Your task to perform on an android device: Go to Google maps Image 0: 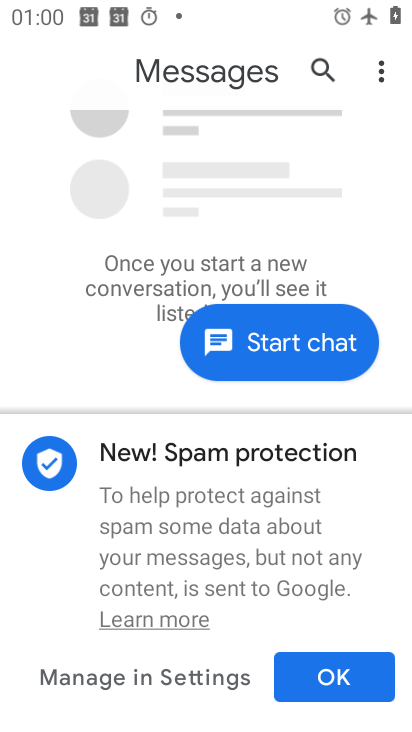
Step 0: press home button
Your task to perform on an android device: Go to Google maps Image 1: 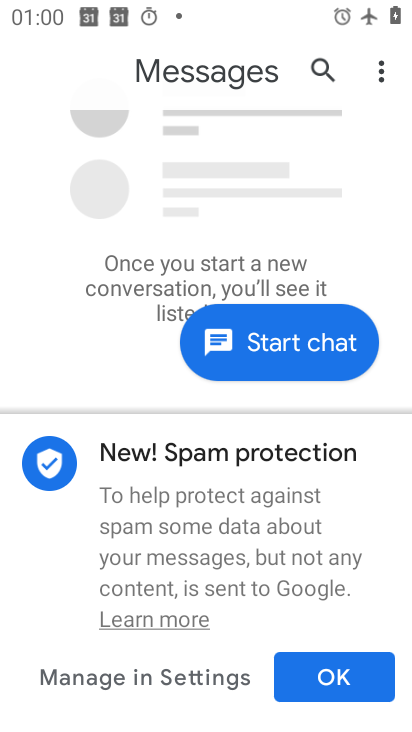
Step 1: press home button
Your task to perform on an android device: Go to Google maps Image 2: 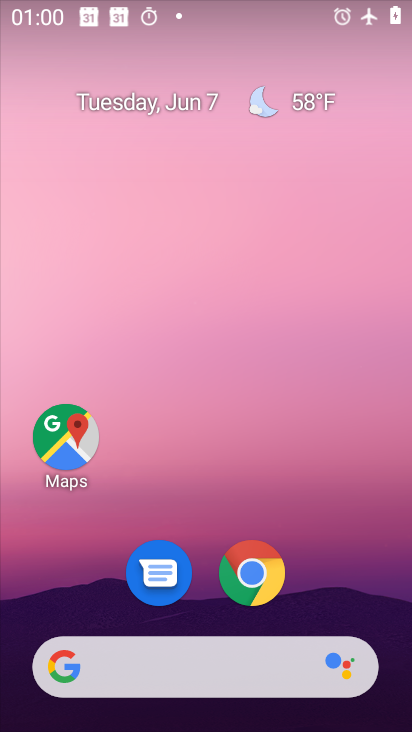
Step 2: click (56, 440)
Your task to perform on an android device: Go to Google maps Image 3: 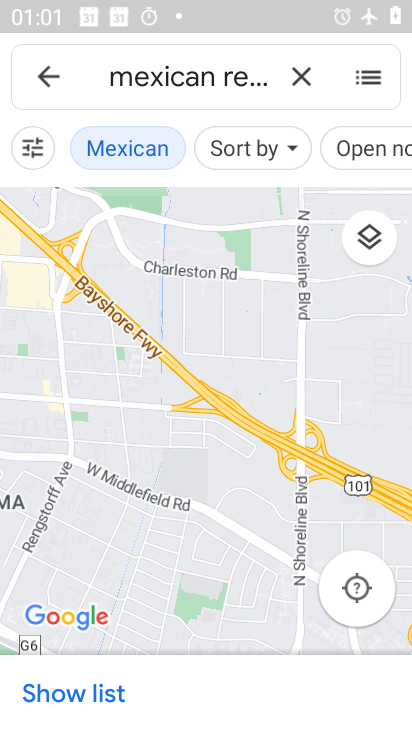
Step 3: task complete